Your task to perform on an android device: Do I have any events today? Image 0: 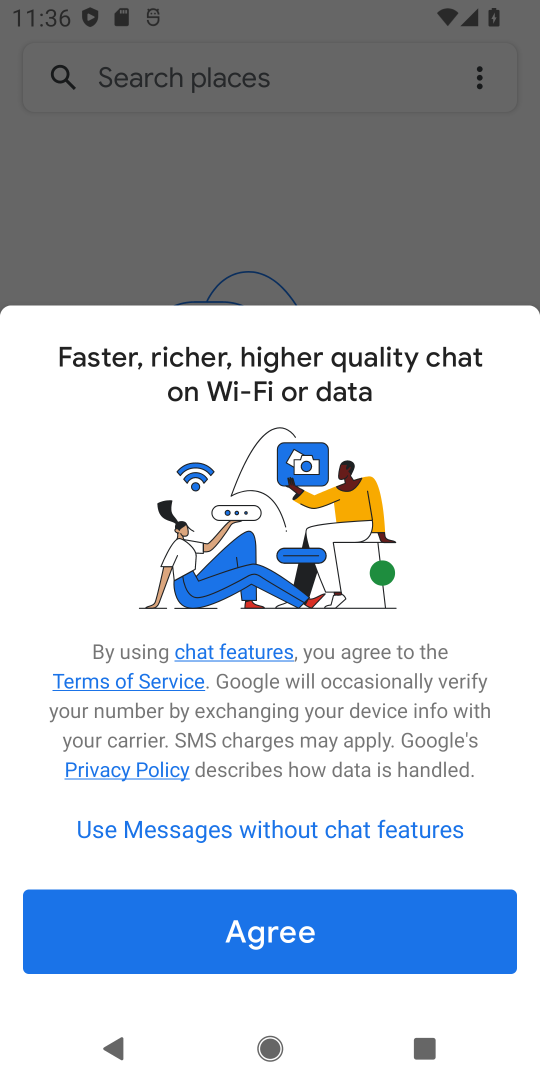
Step 0: press home button
Your task to perform on an android device: Do I have any events today? Image 1: 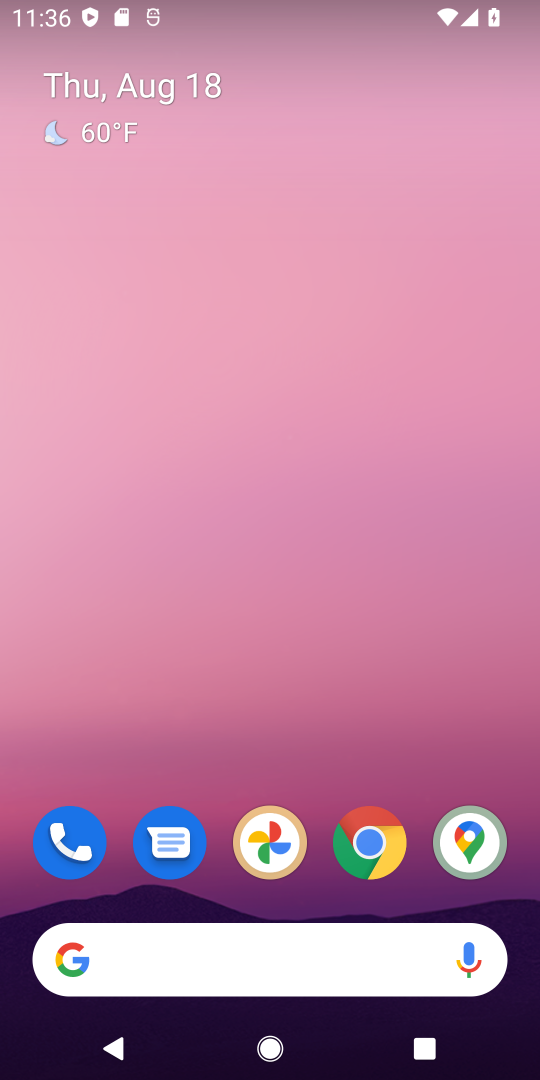
Step 1: click (130, 84)
Your task to perform on an android device: Do I have any events today? Image 2: 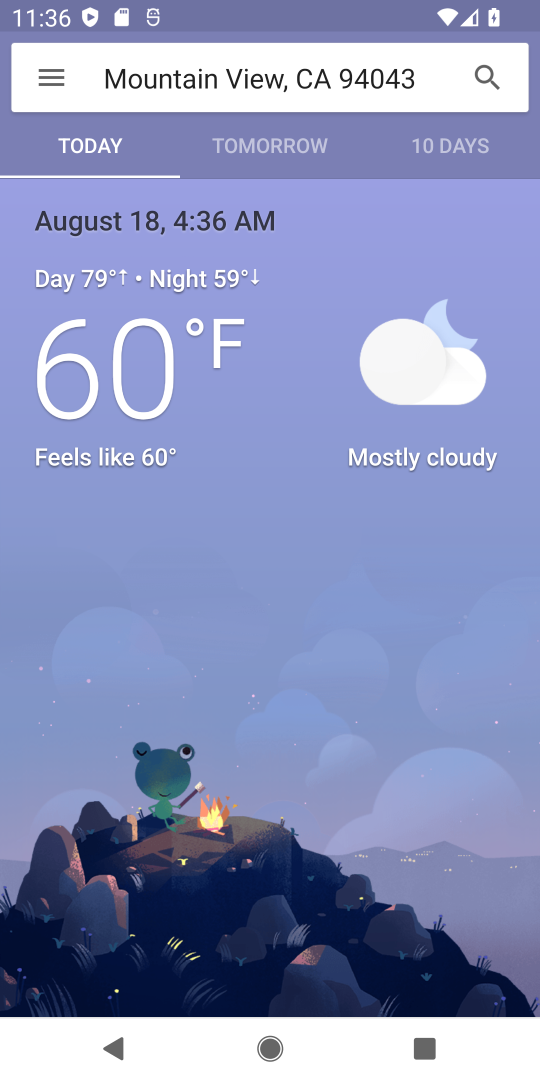
Step 2: press home button
Your task to perform on an android device: Do I have any events today? Image 3: 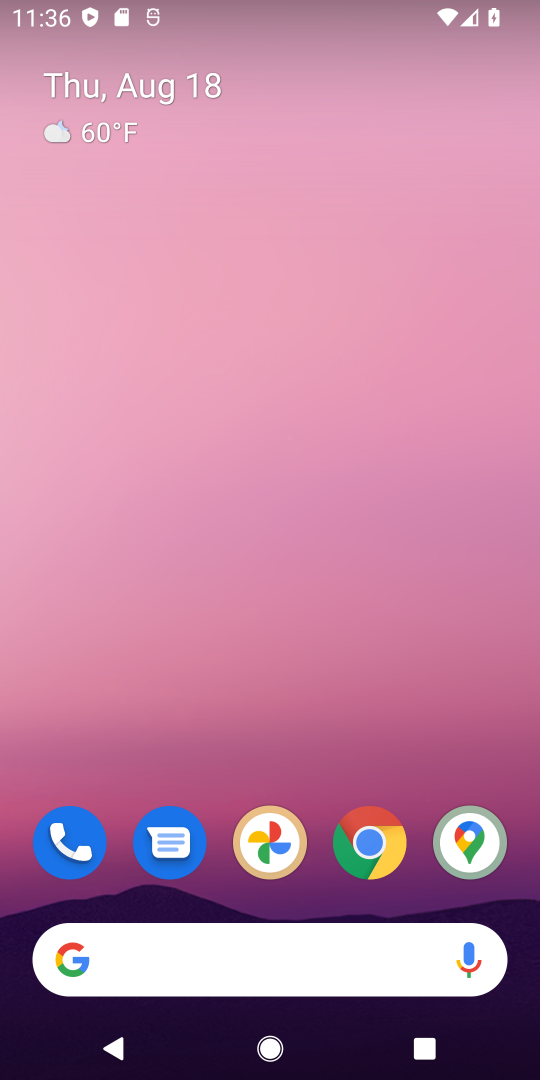
Step 3: click (109, 102)
Your task to perform on an android device: Do I have any events today? Image 4: 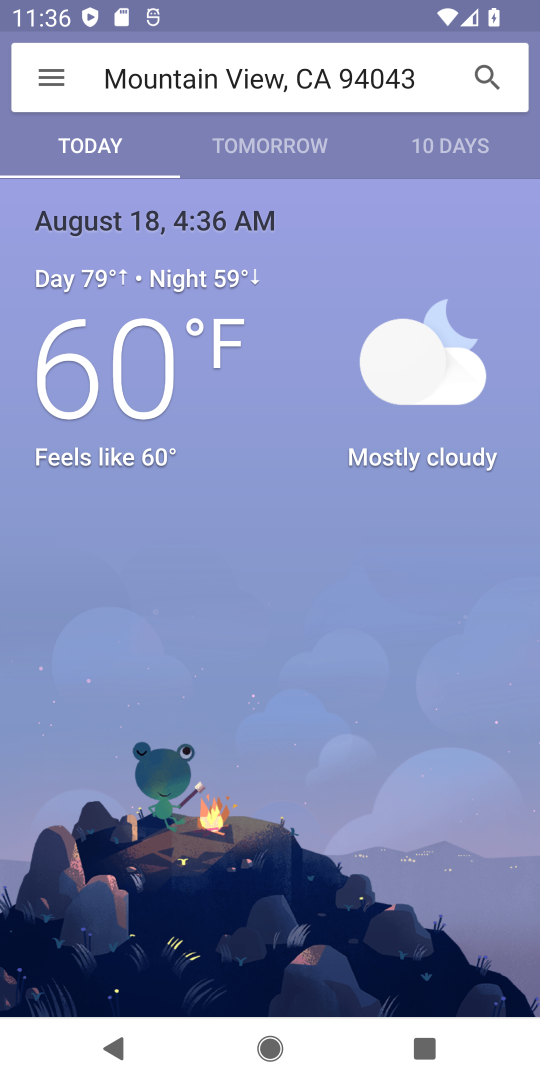
Step 4: press home button
Your task to perform on an android device: Do I have any events today? Image 5: 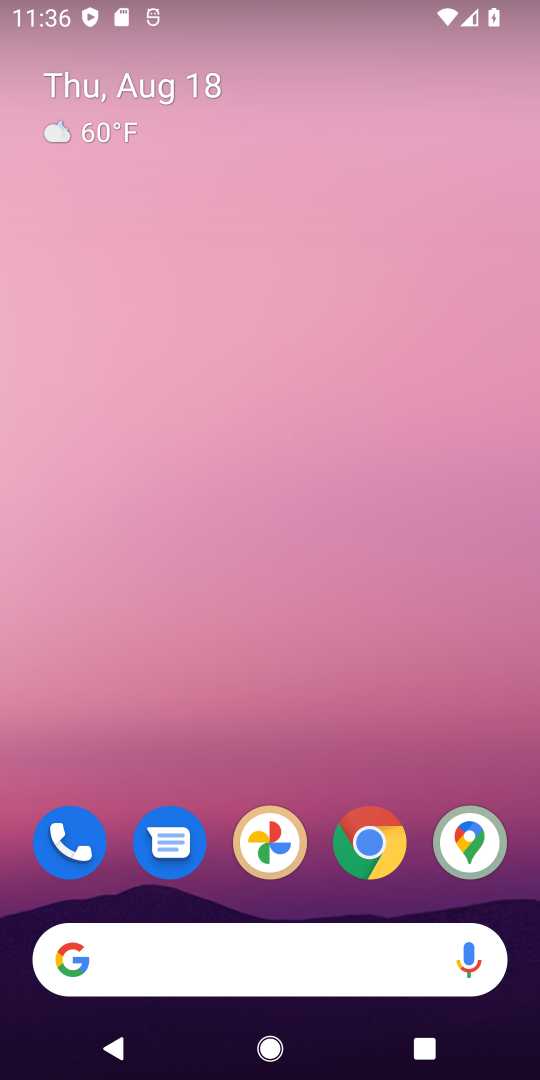
Step 5: click (97, 83)
Your task to perform on an android device: Do I have any events today? Image 6: 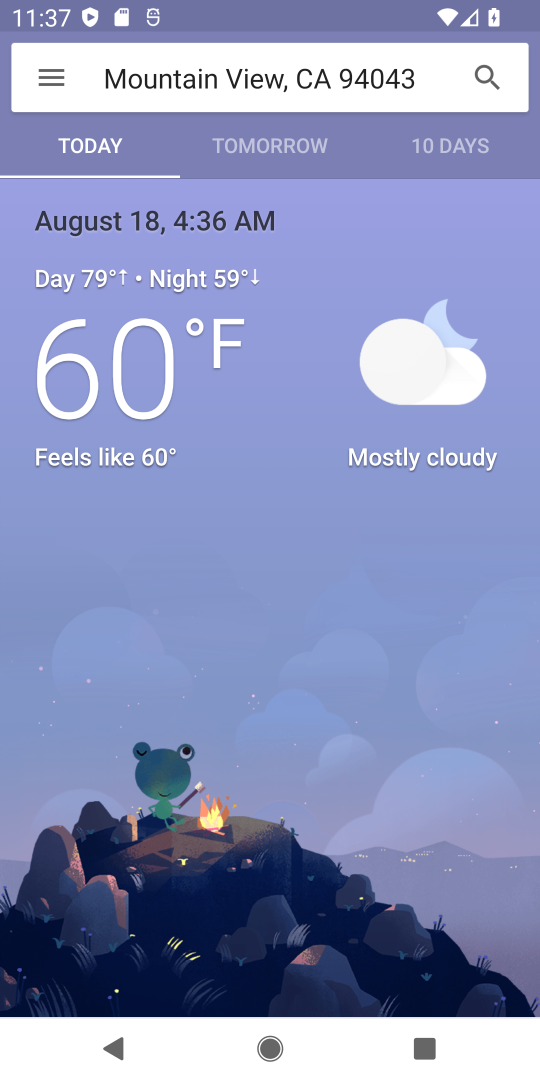
Step 6: press home button
Your task to perform on an android device: Do I have any events today? Image 7: 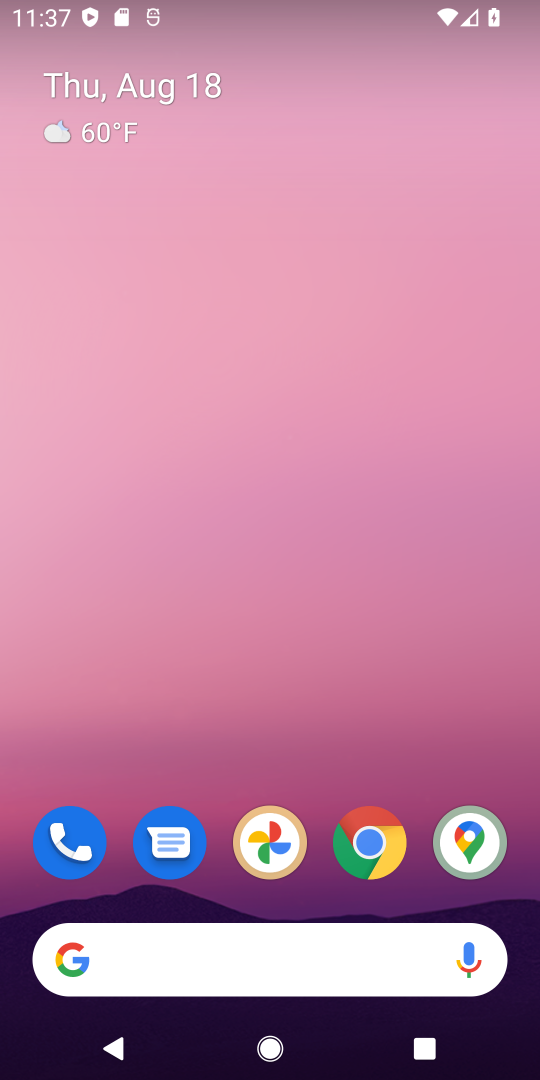
Step 7: click (108, 78)
Your task to perform on an android device: Do I have any events today? Image 8: 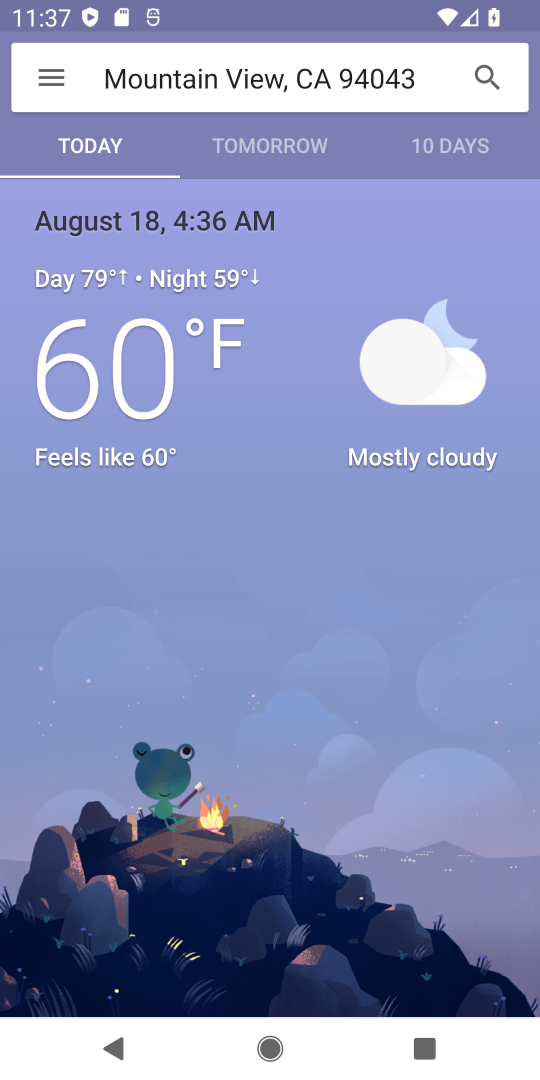
Step 8: task complete